Your task to perform on an android device: Show me the alarms in the clock app Image 0: 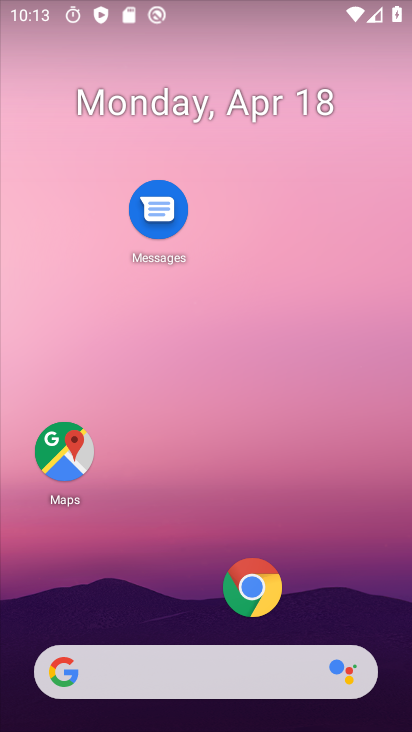
Step 0: drag from (171, 597) to (284, 23)
Your task to perform on an android device: Show me the alarms in the clock app Image 1: 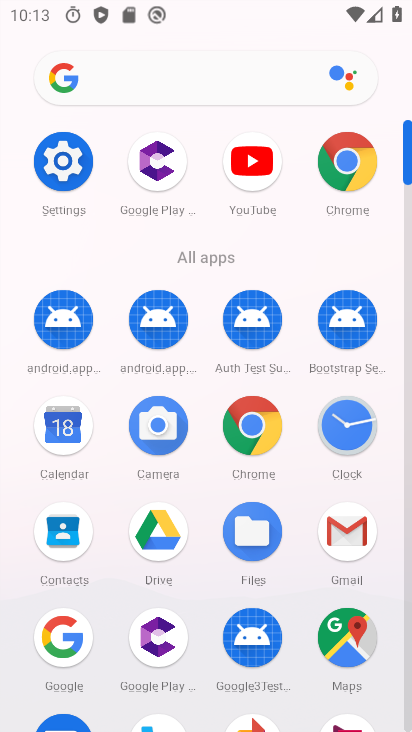
Step 1: click (352, 433)
Your task to perform on an android device: Show me the alarms in the clock app Image 2: 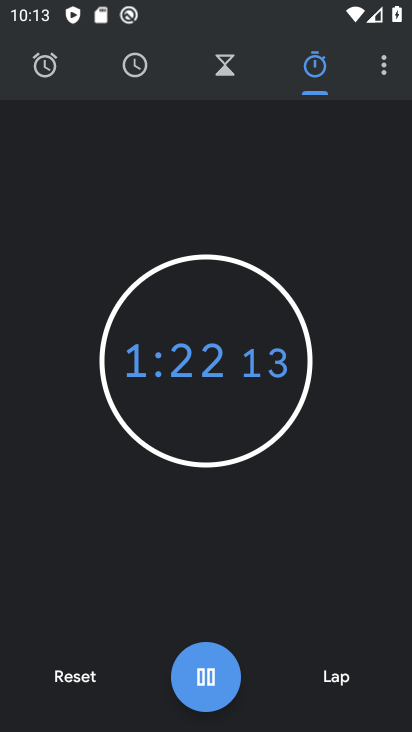
Step 2: click (37, 60)
Your task to perform on an android device: Show me the alarms in the clock app Image 3: 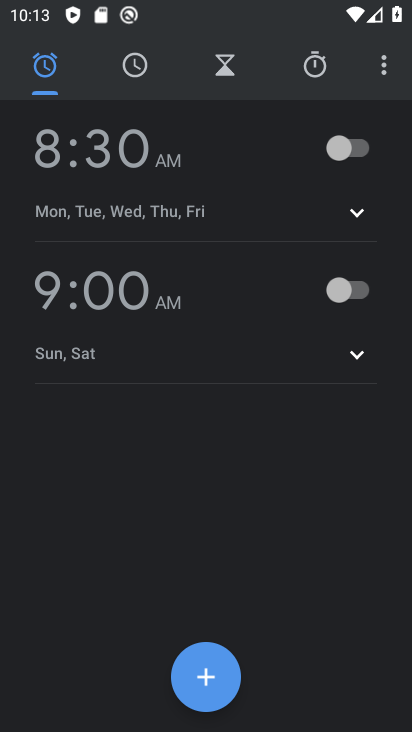
Step 3: task complete